Your task to perform on an android device: open sync settings in chrome Image 0: 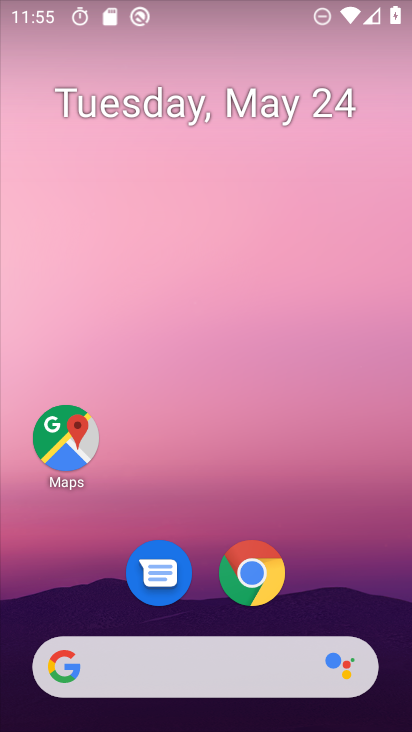
Step 0: drag from (346, 511) to (268, 43)
Your task to perform on an android device: open sync settings in chrome Image 1: 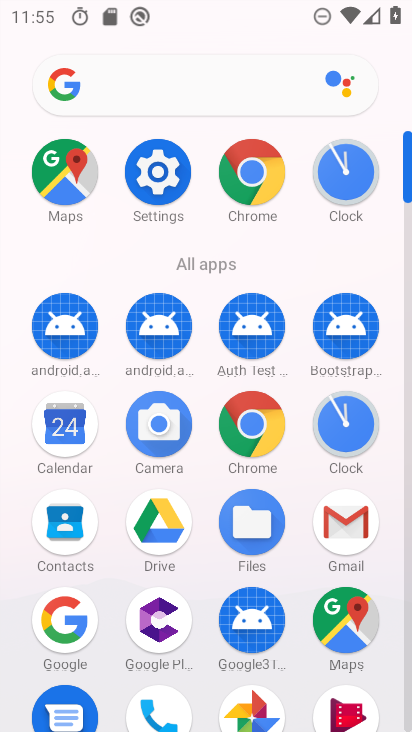
Step 1: drag from (0, 588) to (6, 209)
Your task to perform on an android device: open sync settings in chrome Image 2: 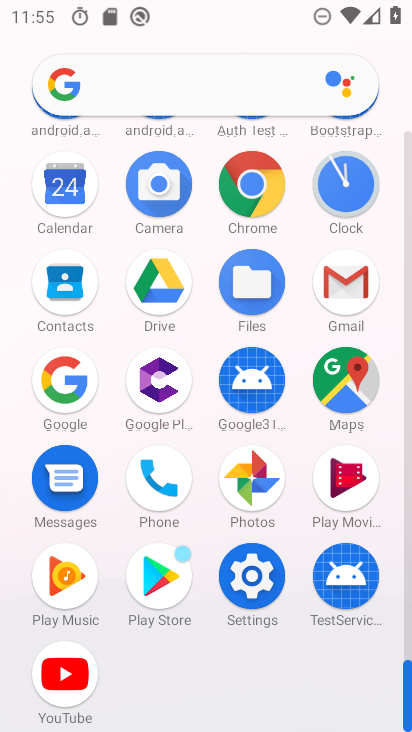
Step 2: click (244, 160)
Your task to perform on an android device: open sync settings in chrome Image 3: 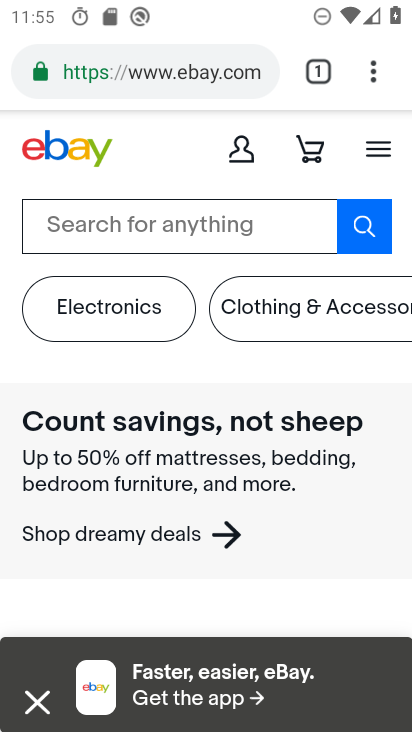
Step 3: drag from (367, 64) to (124, 569)
Your task to perform on an android device: open sync settings in chrome Image 4: 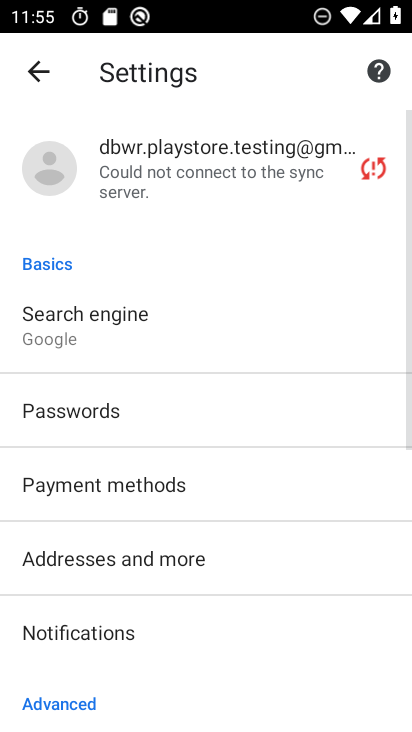
Step 4: click (136, 156)
Your task to perform on an android device: open sync settings in chrome Image 5: 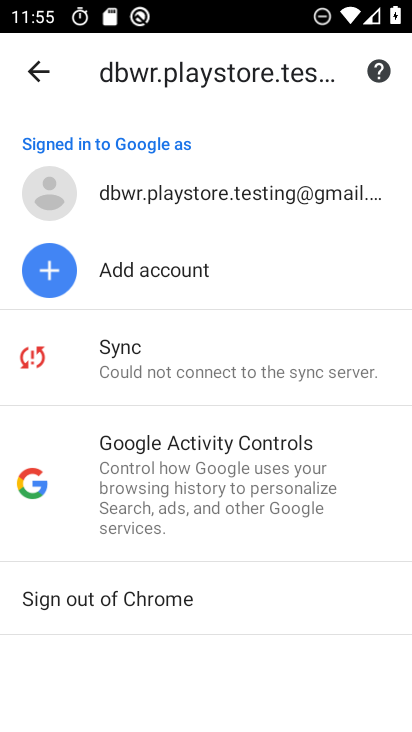
Step 5: click (140, 342)
Your task to perform on an android device: open sync settings in chrome Image 6: 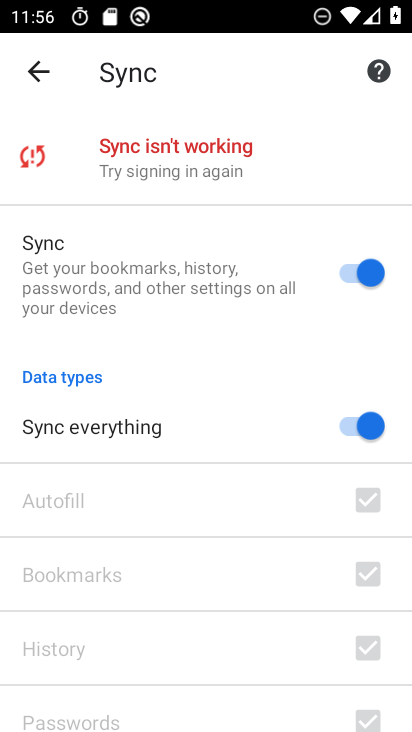
Step 6: task complete